Your task to perform on an android device: snooze an email in the gmail app Image 0: 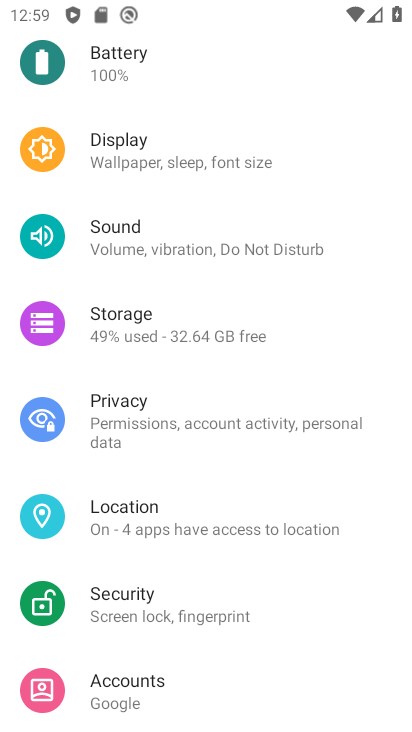
Step 0: press home button
Your task to perform on an android device: snooze an email in the gmail app Image 1: 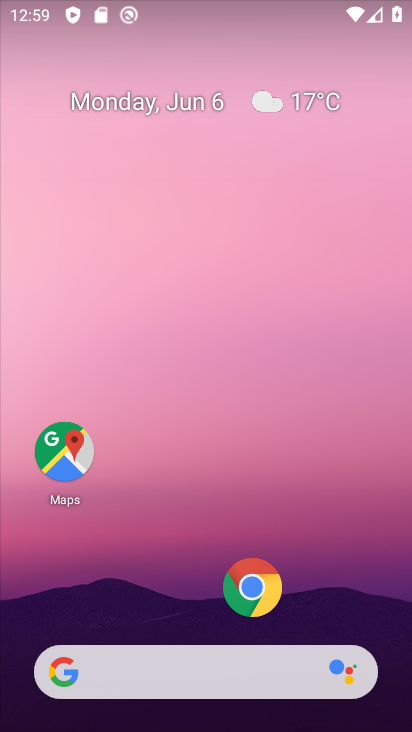
Step 1: drag from (148, 603) to (191, 226)
Your task to perform on an android device: snooze an email in the gmail app Image 2: 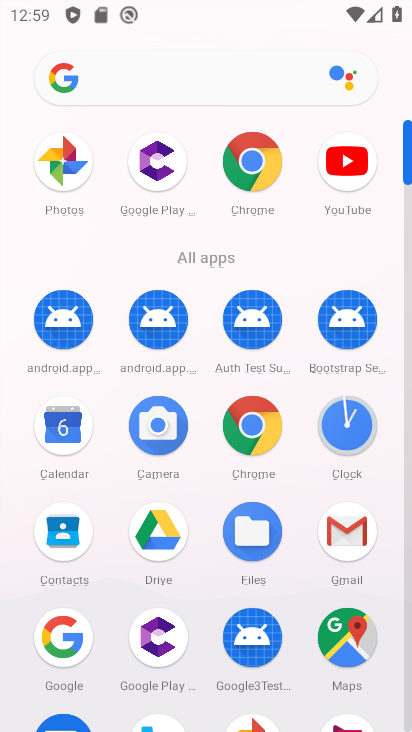
Step 2: click (355, 531)
Your task to perform on an android device: snooze an email in the gmail app Image 3: 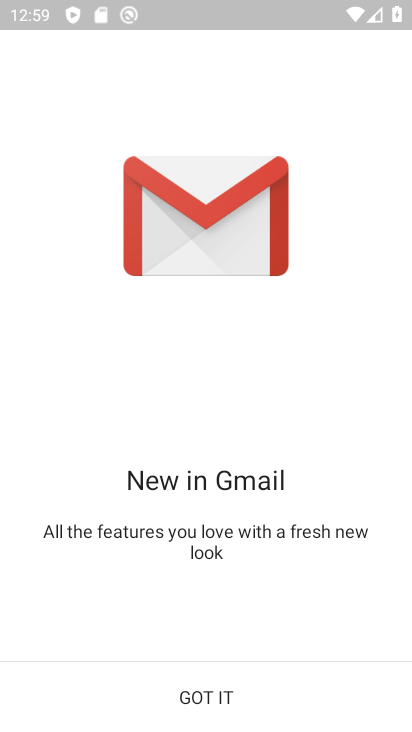
Step 3: click (236, 707)
Your task to perform on an android device: snooze an email in the gmail app Image 4: 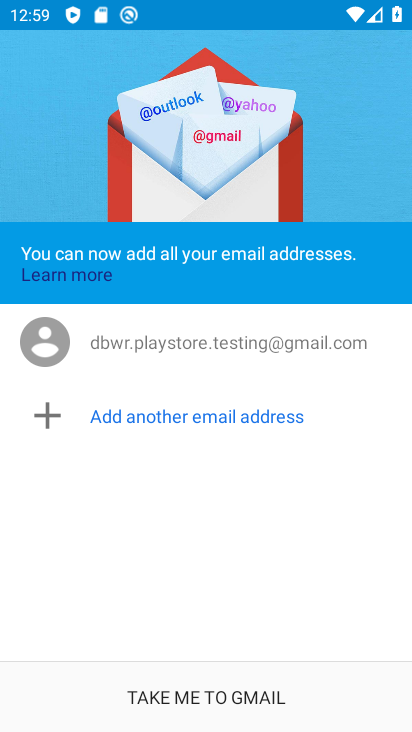
Step 4: click (193, 695)
Your task to perform on an android device: snooze an email in the gmail app Image 5: 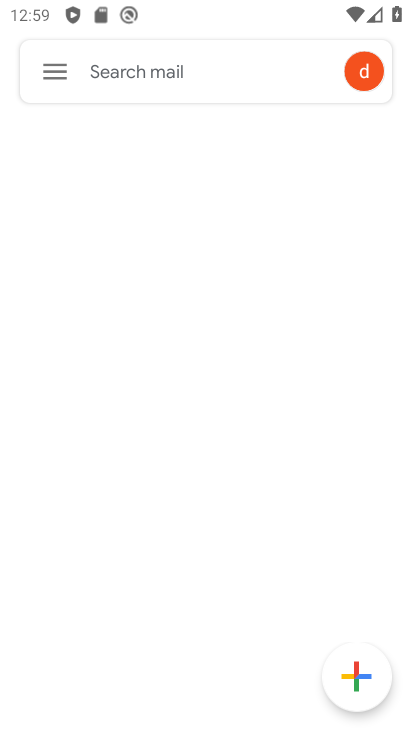
Step 5: click (50, 70)
Your task to perform on an android device: snooze an email in the gmail app Image 6: 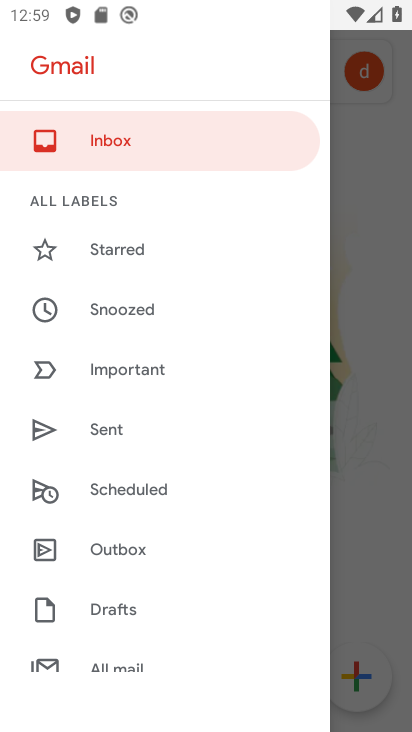
Step 6: drag from (130, 568) to (149, 399)
Your task to perform on an android device: snooze an email in the gmail app Image 7: 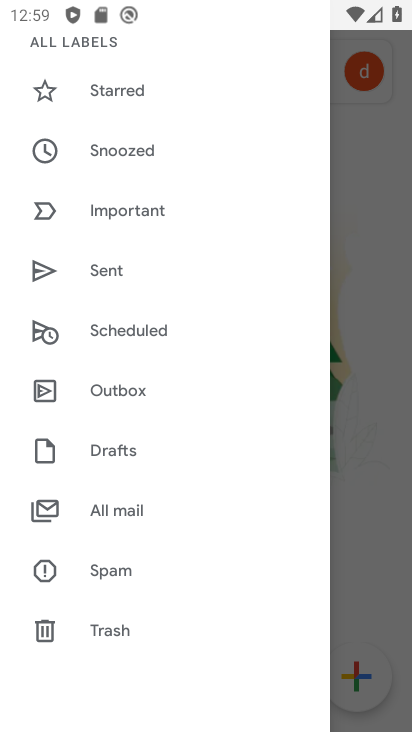
Step 7: click (131, 515)
Your task to perform on an android device: snooze an email in the gmail app Image 8: 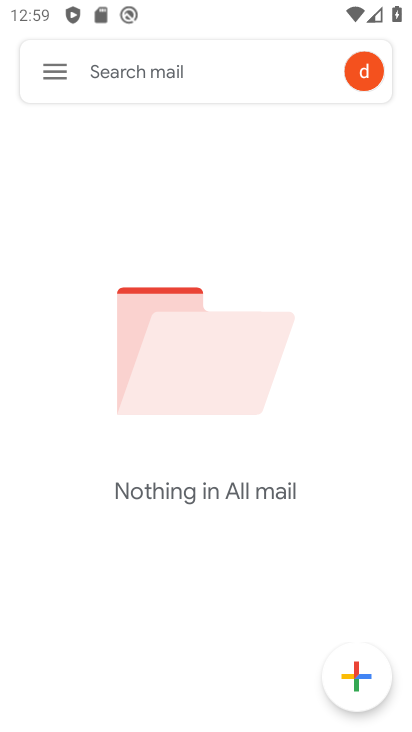
Step 8: task complete